Your task to perform on an android device: Open internet settings Image 0: 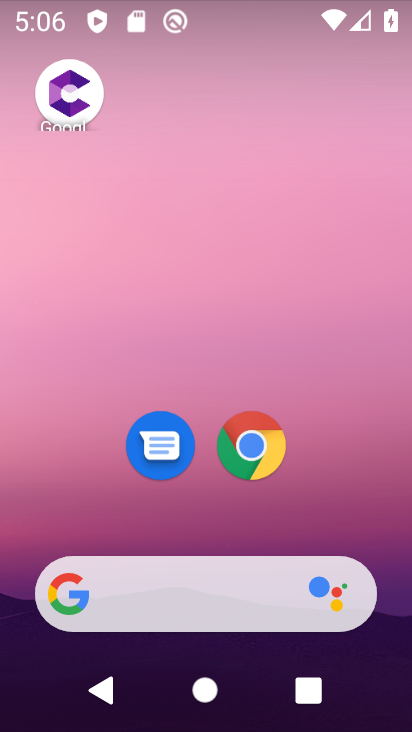
Step 0: click (199, 10)
Your task to perform on an android device: Open internet settings Image 1: 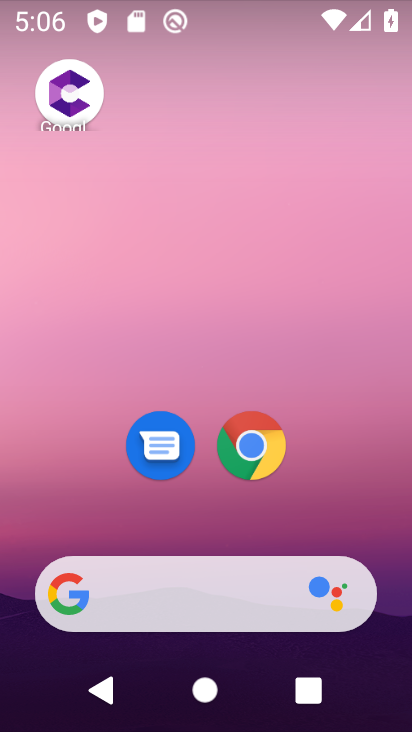
Step 1: drag from (255, 659) to (109, 0)
Your task to perform on an android device: Open internet settings Image 2: 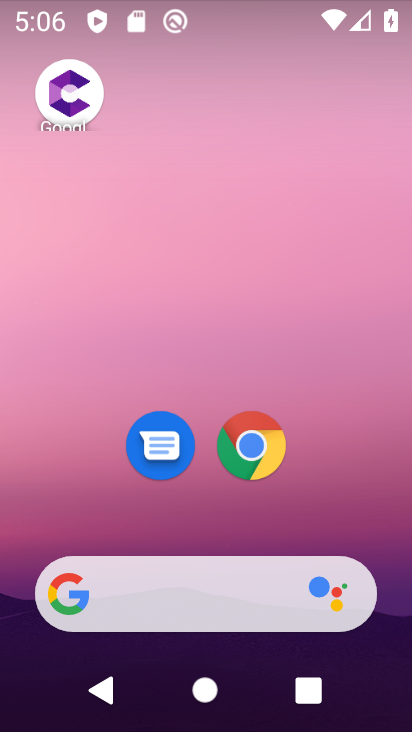
Step 2: drag from (186, 513) to (59, 0)
Your task to perform on an android device: Open internet settings Image 3: 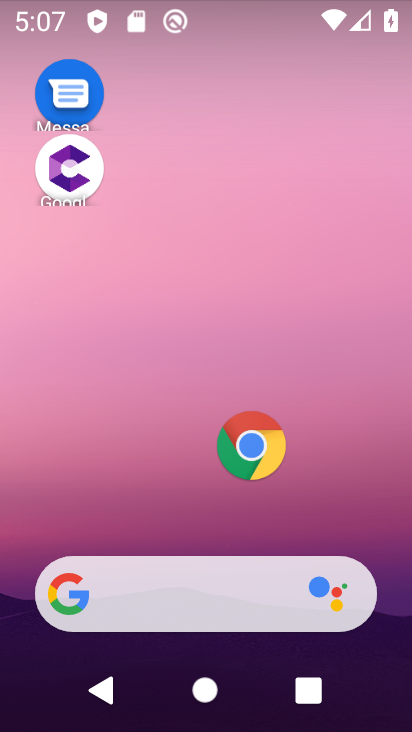
Step 3: drag from (262, 711) to (134, 0)
Your task to perform on an android device: Open internet settings Image 4: 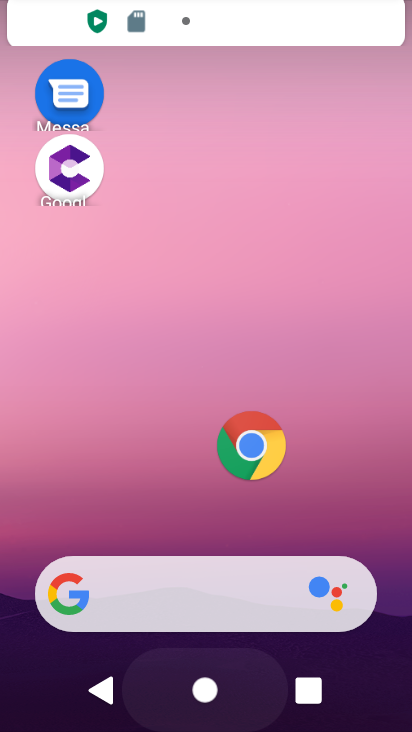
Step 4: click (209, 12)
Your task to perform on an android device: Open internet settings Image 5: 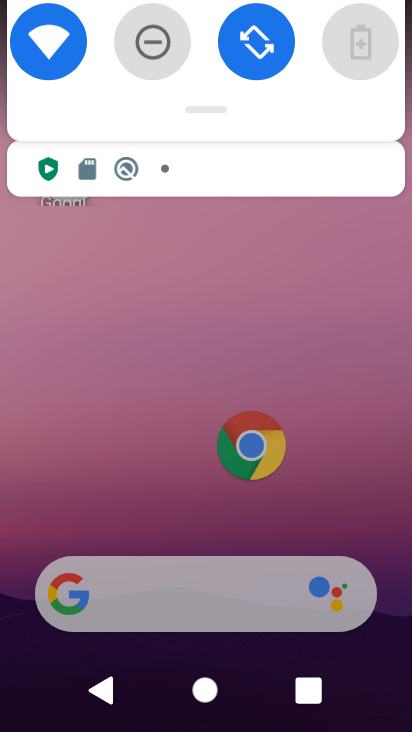
Step 5: click (285, 13)
Your task to perform on an android device: Open internet settings Image 6: 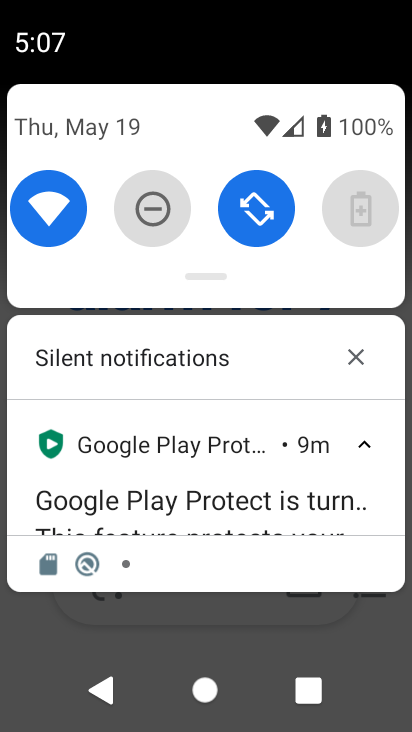
Step 6: click (335, 631)
Your task to perform on an android device: Open internet settings Image 7: 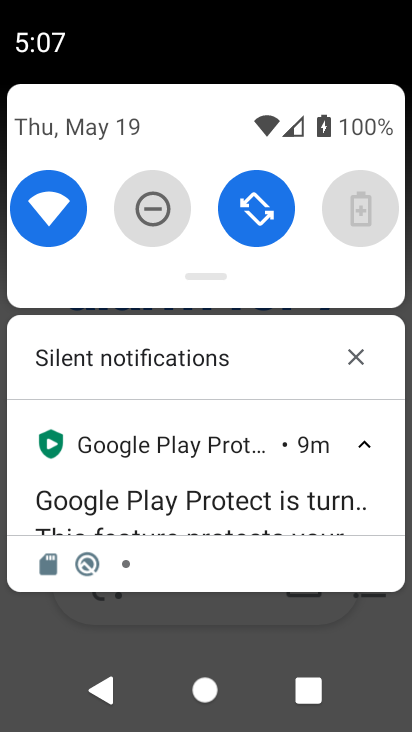
Step 7: click (335, 631)
Your task to perform on an android device: Open internet settings Image 8: 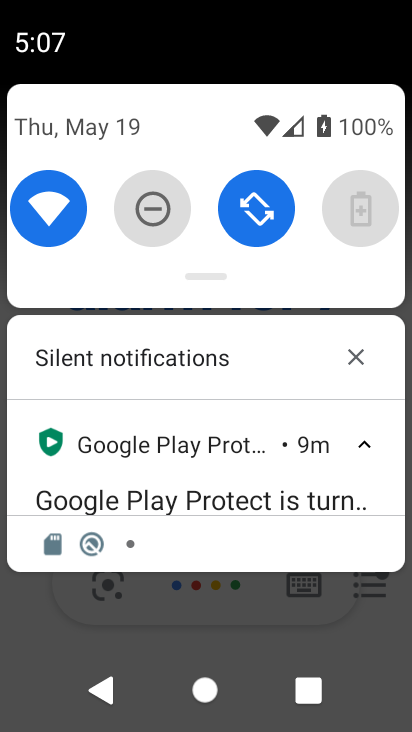
Step 8: drag from (334, 630) to (336, 585)
Your task to perform on an android device: Open internet settings Image 9: 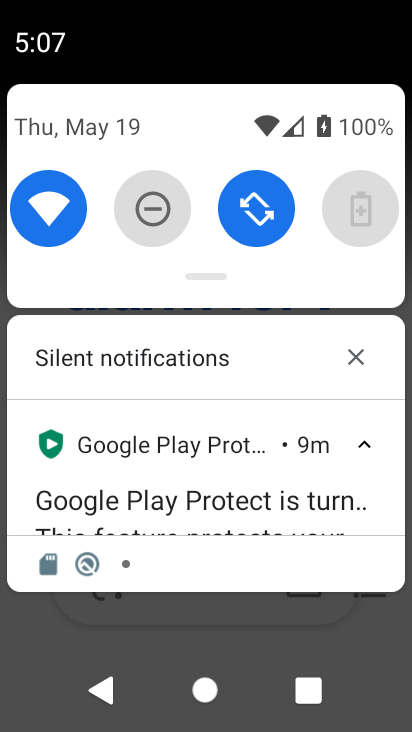
Step 9: click (355, 350)
Your task to perform on an android device: Open internet settings Image 10: 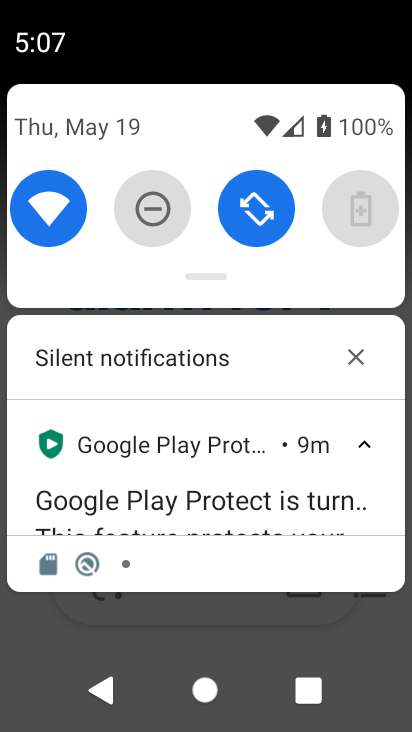
Step 10: click (355, 350)
Your task to perform on an android device: Open internet settings Image 11: 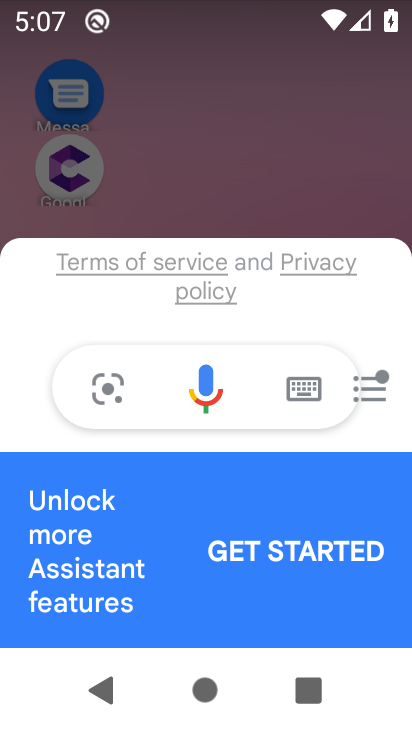
Step 11: press back button
Your task to perform on an android device: Open internet settings Image 12: 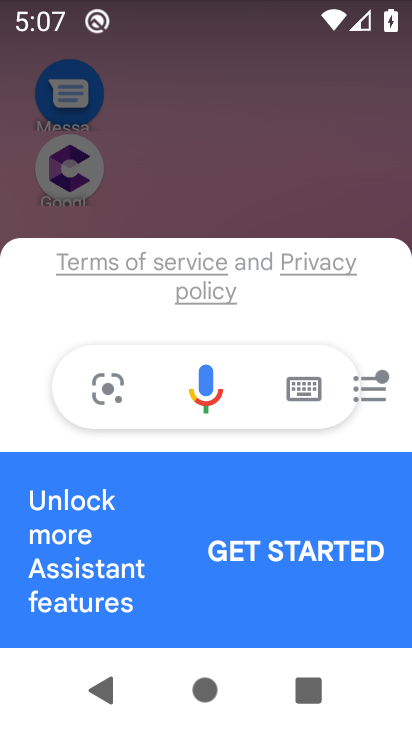
Step 12: press back button
Your task to perform on an android device: Open internet settings Image 13: 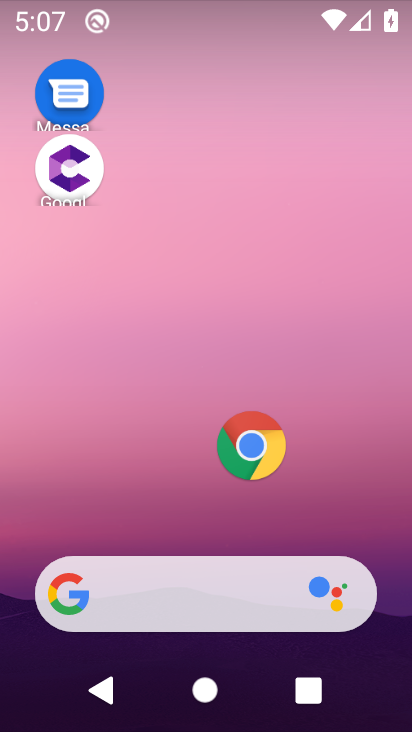
Step 13: press back button
Your task to perform on an android device: Open internet settings Image 14: 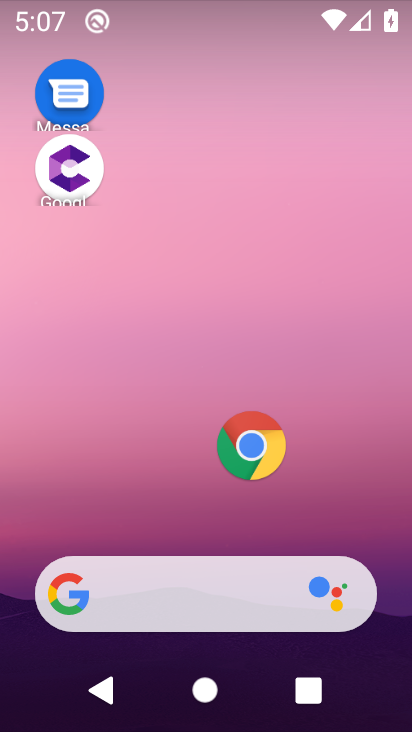
Step 14: press back button
Your task to perform on an android device: Open internet settings Image 15: 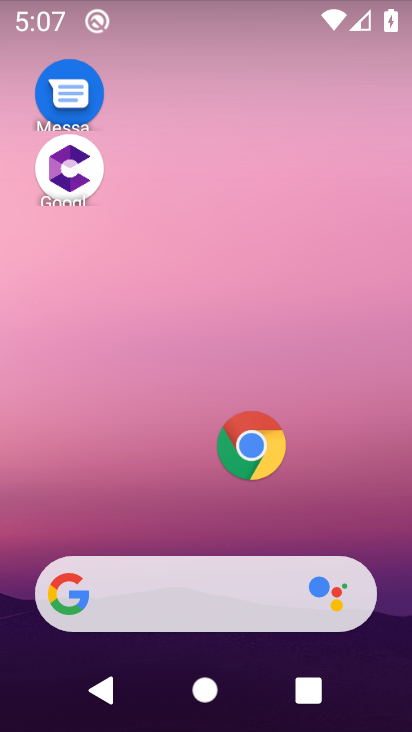
Step 15: drag from (303, 461) to (123, 39)
Your task to perform on an android device: Open internet settings Image 16: 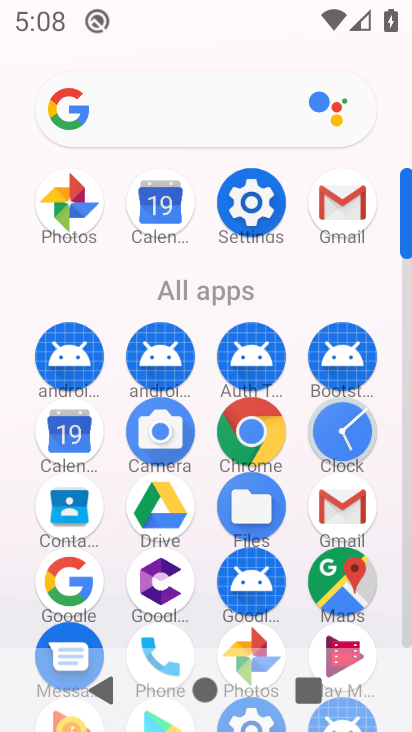
Step 16: click (234, 213)
Your task to perform on an android device: Open internet settings Image 17: 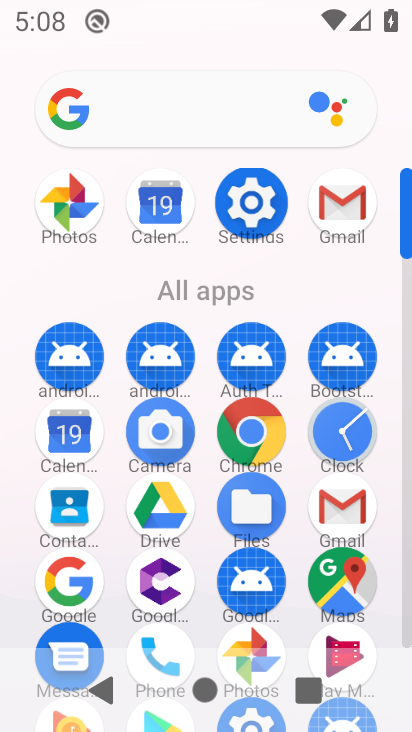
Step 17: drag from (238, 211) to (279, 225)
Your task to perform on an android device: Open internet settings Image 18: 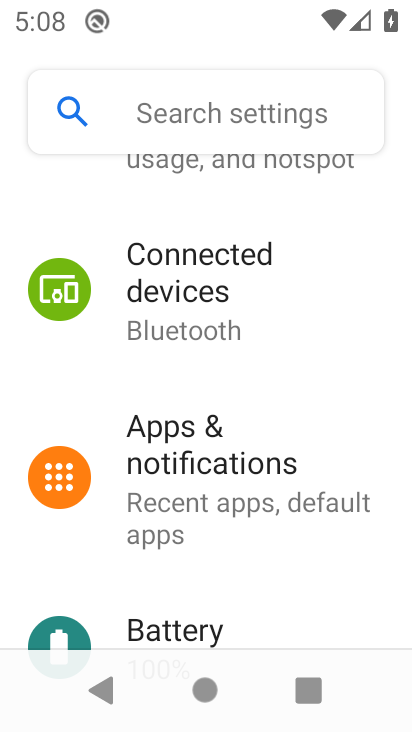
Step 18: drag from (194, 195) to (267, 541)
Your task to perform on an android device: Open internet settings Image 19: 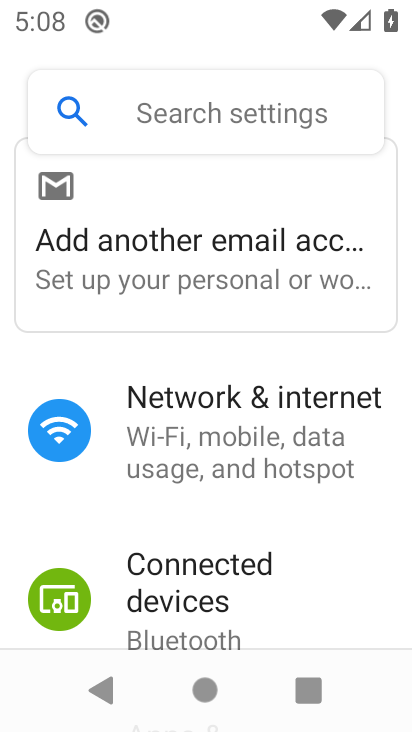
Step 19: drag from (187, 279) to (251, 547)
Your task to perform on an android device: Open internet settings Image 20: 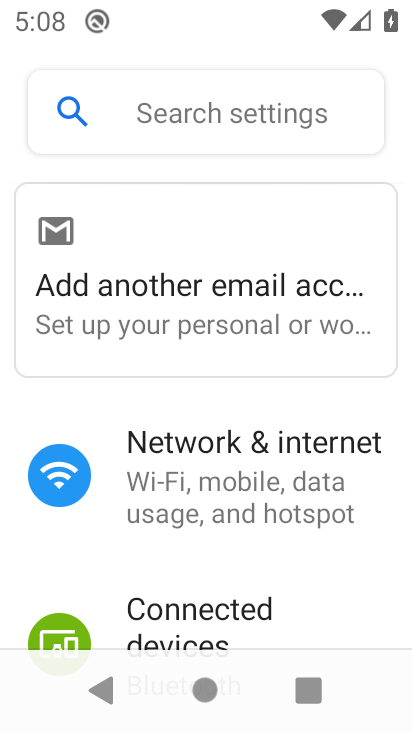
Step 20: click (236, 436)
Your task to perform on an android device: Open internet settings Image 21: 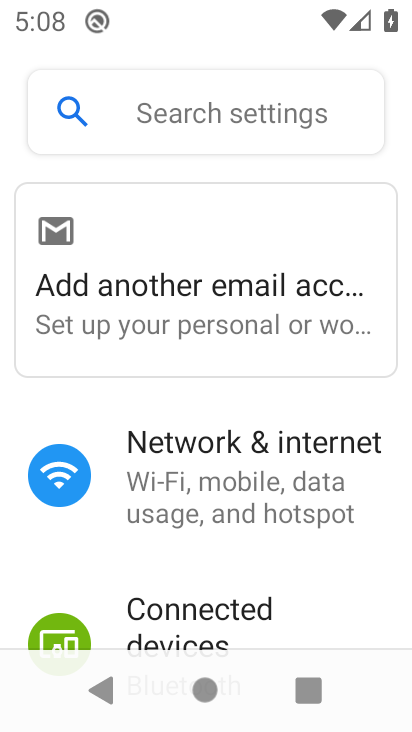
Step 21: click (237, 435)
Your task to perform on an android device: Open internet settings Image 22: 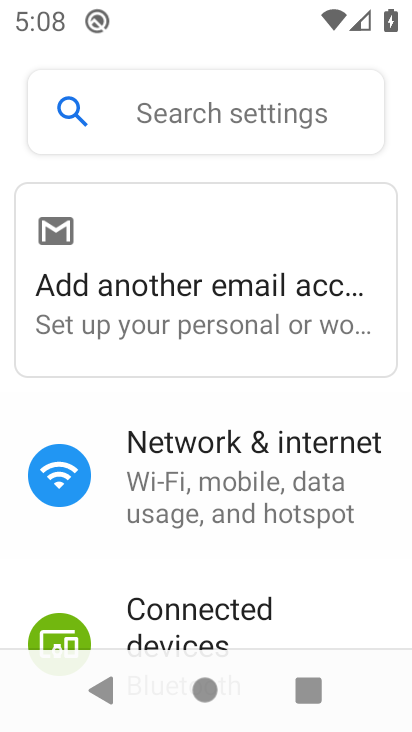
Step 22: click (244, 461)
Your task to perform on an android device: Open internet settings Image 23: 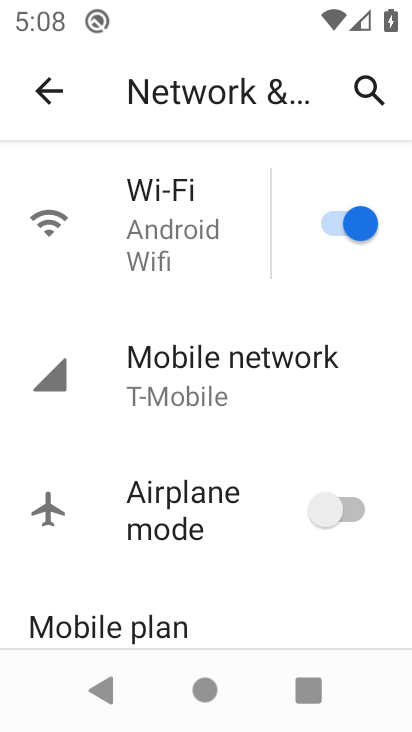
Step 23: click (198, 386)
Your task to perform on an android device: Open internet settings Image 24: 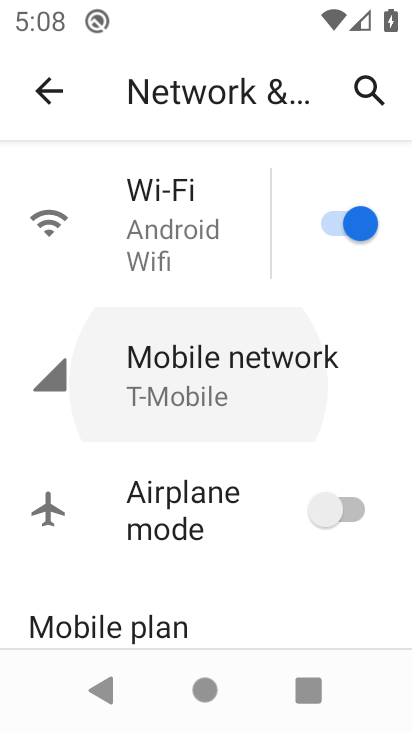
Step 24: click (198, 386)
Your task to perform on an android device: Open internet settings Image 25: 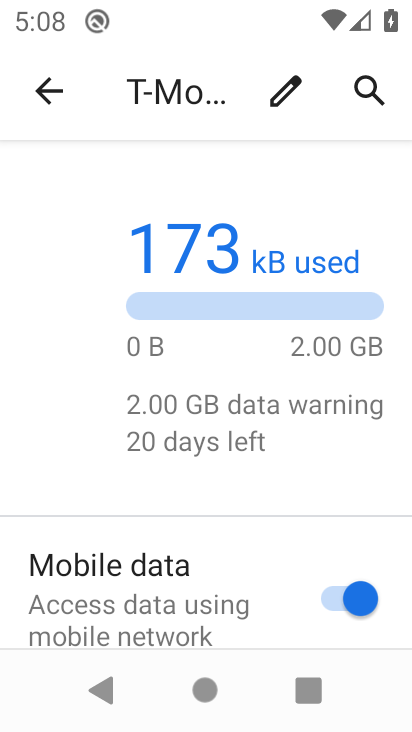
Step 25: click (51, 83)
Your task to perform on an android device: Open internet settings Image 26: 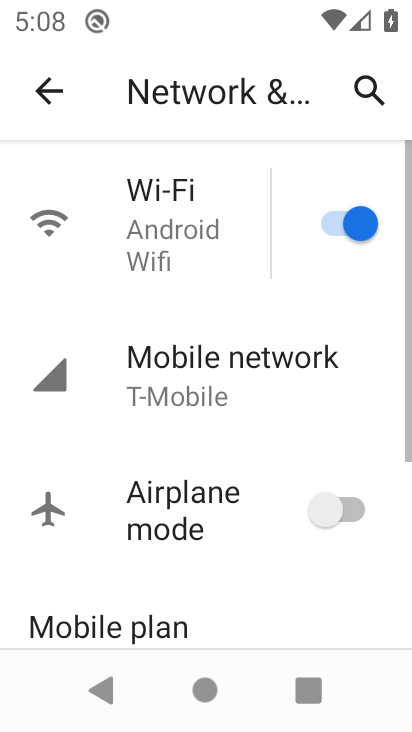
Step 26: task complete